Your task to perform on an android device: Go to Google Image 0: 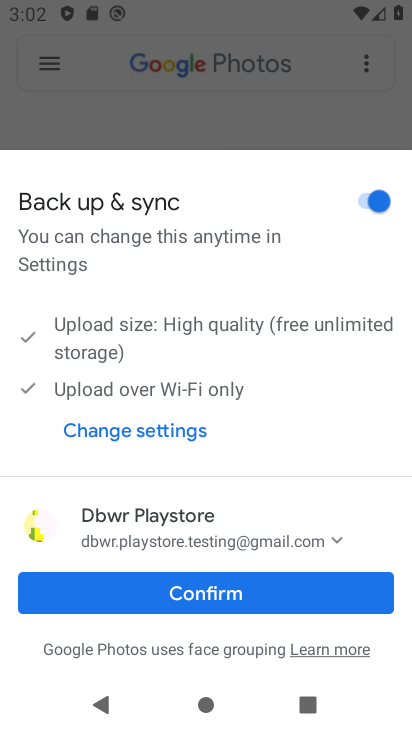
Step 0: press home button
Your task to perform on an android device: Go to Google Image 1: 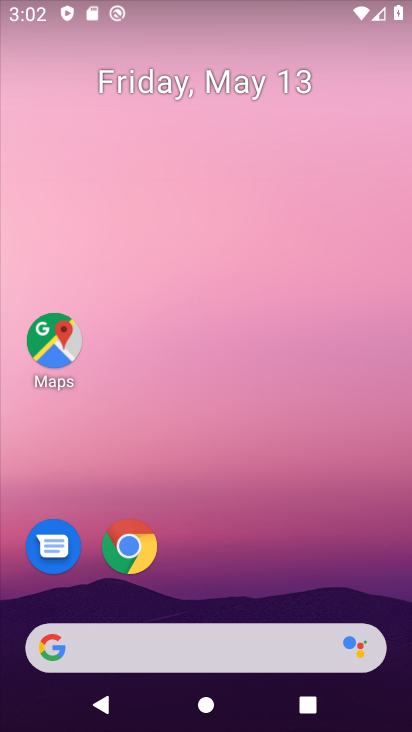
Step 1: click (142, 664)
Your task to perform on an android device: Go to Google Image 2: 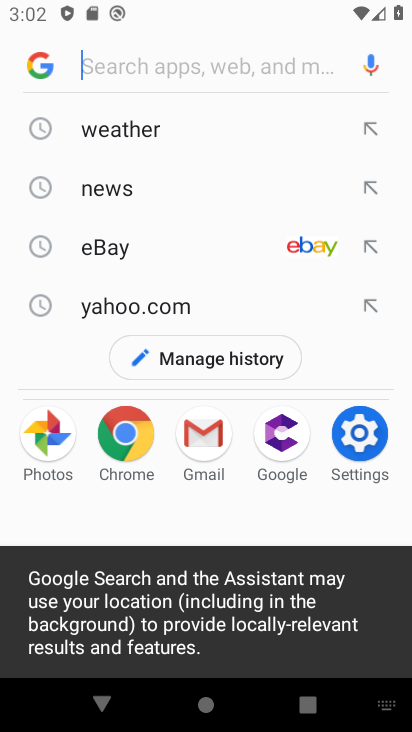
Step 2: task complete